Your task to perform on an android device: change your default location settings in chrome Image 0: 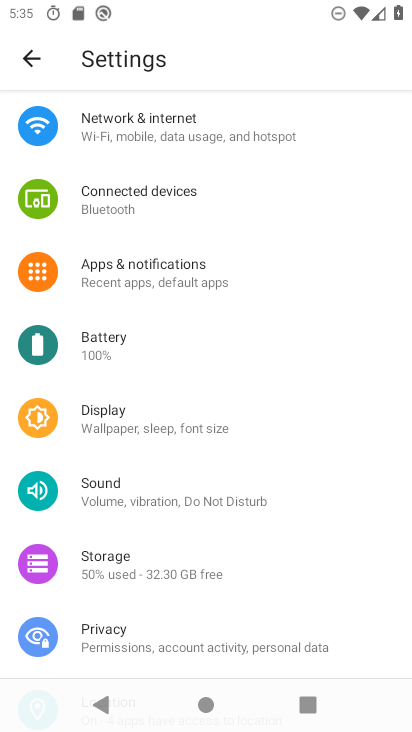
Step 0: press home button
Your task to perform on an android device: change your default location settings in chrome Image 1: 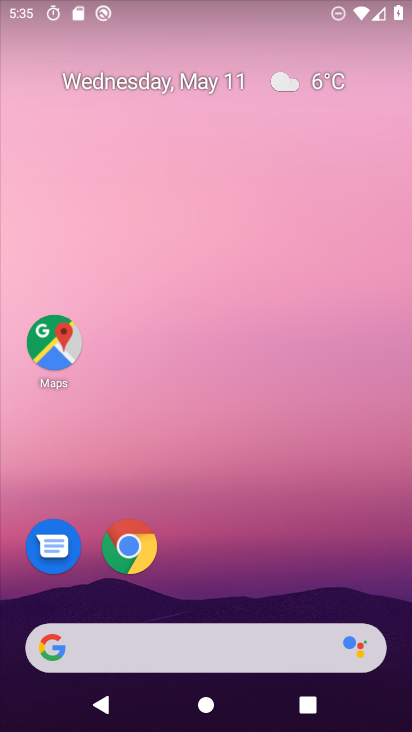
Step 1: click (135, 541)
Your task to perform on an android device: change your default location settings in chrome Image 2: 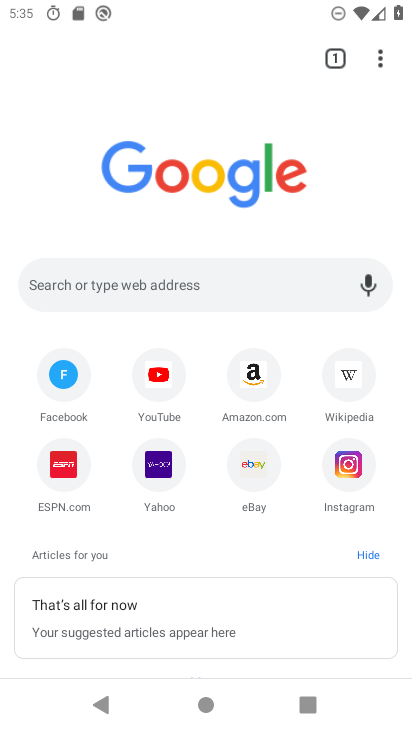
Step 2: click (383, 53)
Your task to perform on an android device: change your default location settings in chrome Image 3: 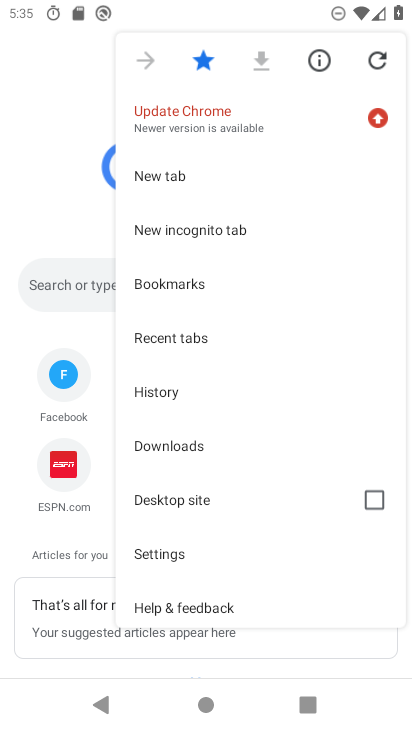
Step 3: click (164, 552)
Your task to perform on an android device: change your default location settings in chrome Image 4: 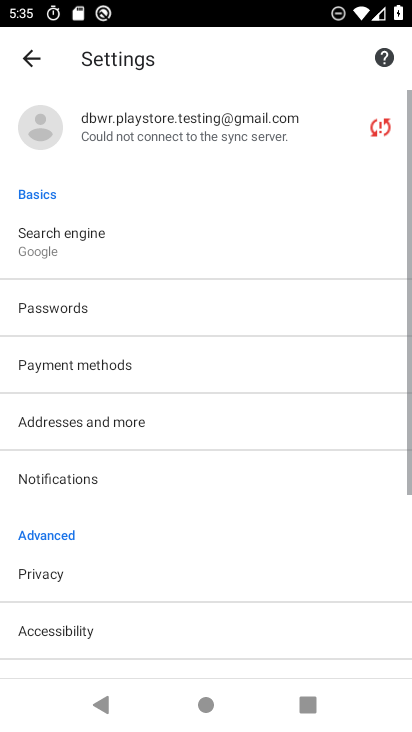
Step 4: click (100, 239)
Your task to perform on an android device: change your default location settings in chrome Image 5: 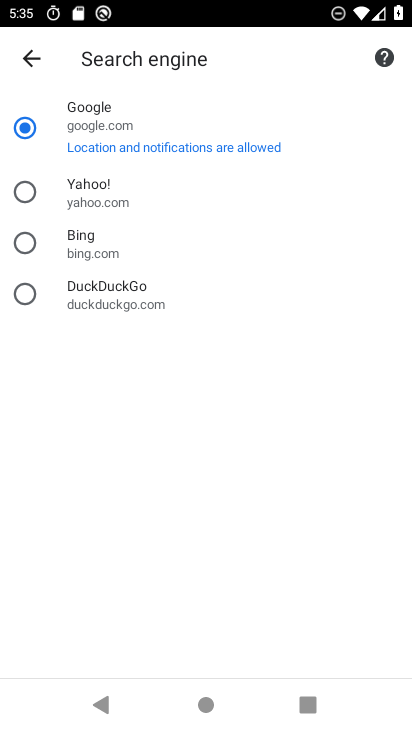
Step 5: click (34, 63)
Your task to perform on an android device: change your default location settings in chrome Image 6: 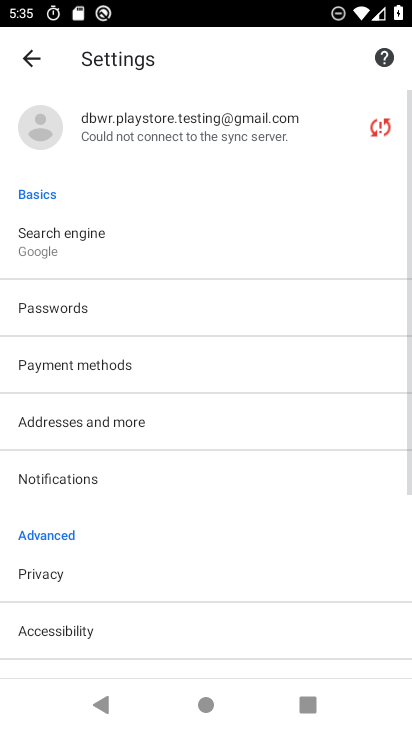
Step 6: drag from (123, 636) to (119, 326)
Your task to perform on an android device: change your default location settings in chrome Image 7: 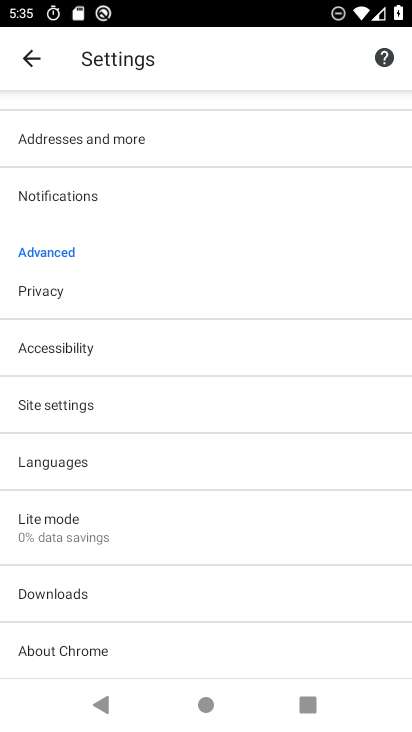
Step 7: click (50, 402)
Your task to perform on an android device: change your default location settings in chrome Image 8: 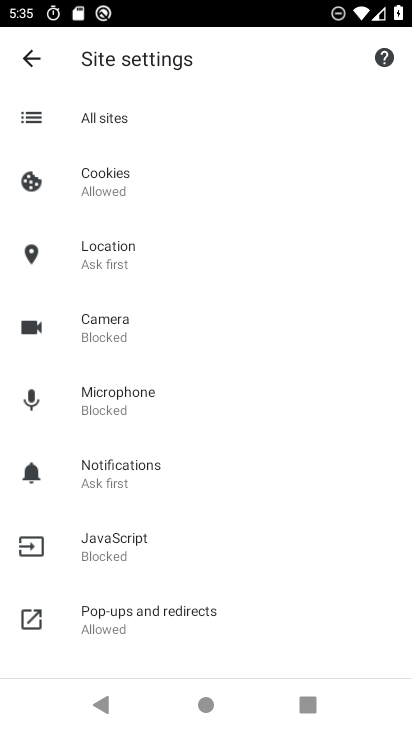
Step 8: click (115, 263)
Your task to perform on an android device: change your default location settings in chrome Image 9: 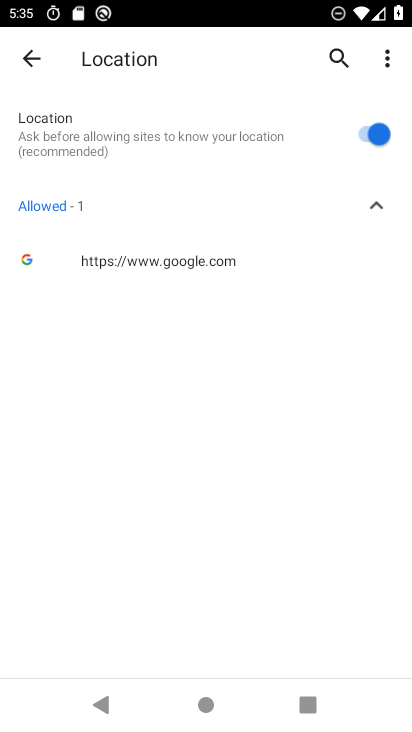
Step 9: click (361, 132)
Your task to perform on an android device: change your default location settings in chrome Image 10: 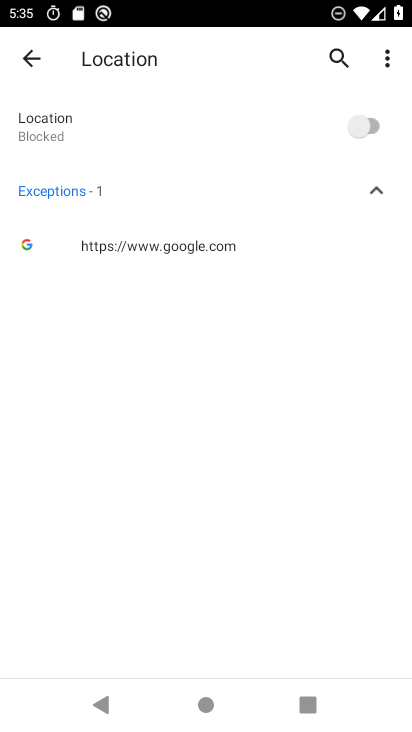
Step 10: task complete